Your task to perform on an android device: open app "Truecaller" (install if not already installed) and go to login screen Image 0: 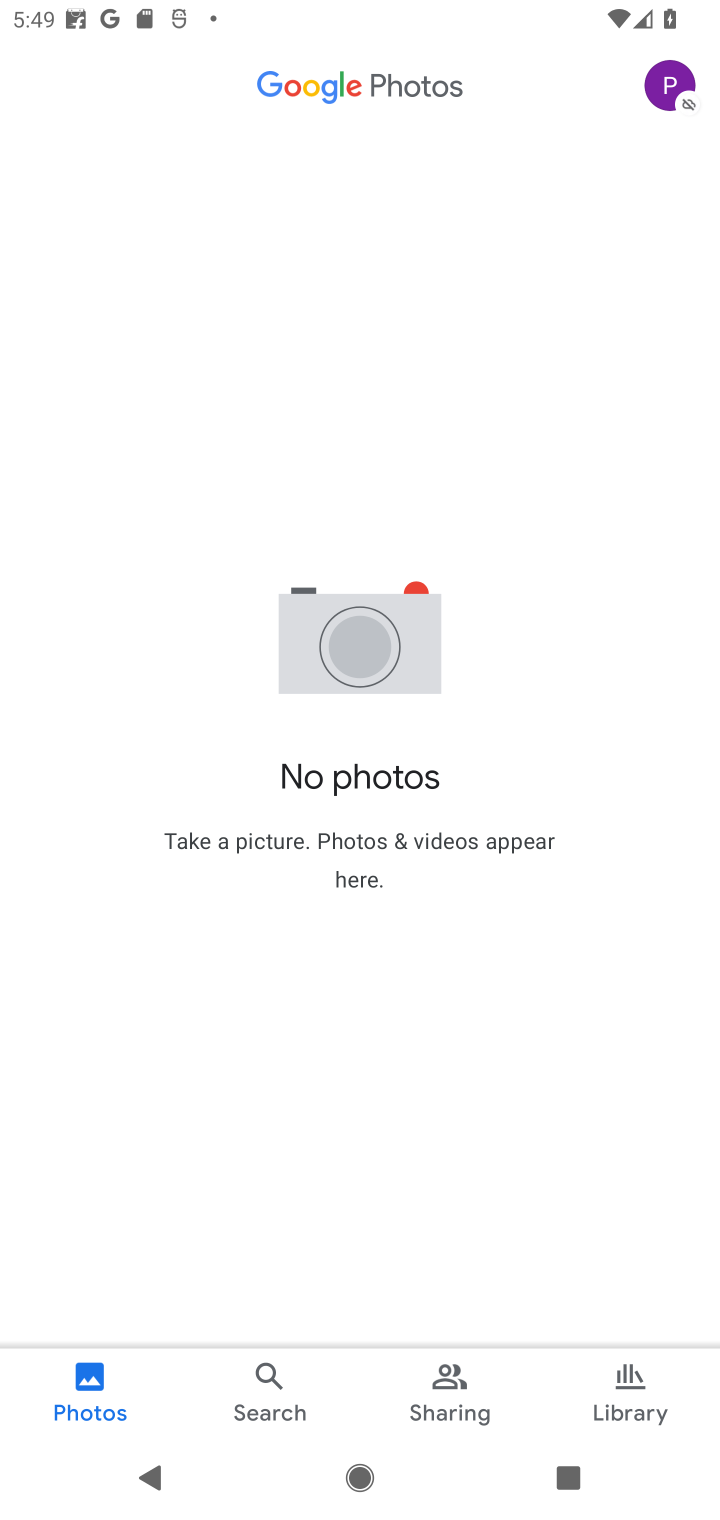
Step 0: press home button
Your task to perform on an android device: open app "Truecaller" (install if not already installed) and go to login screen Image 1: 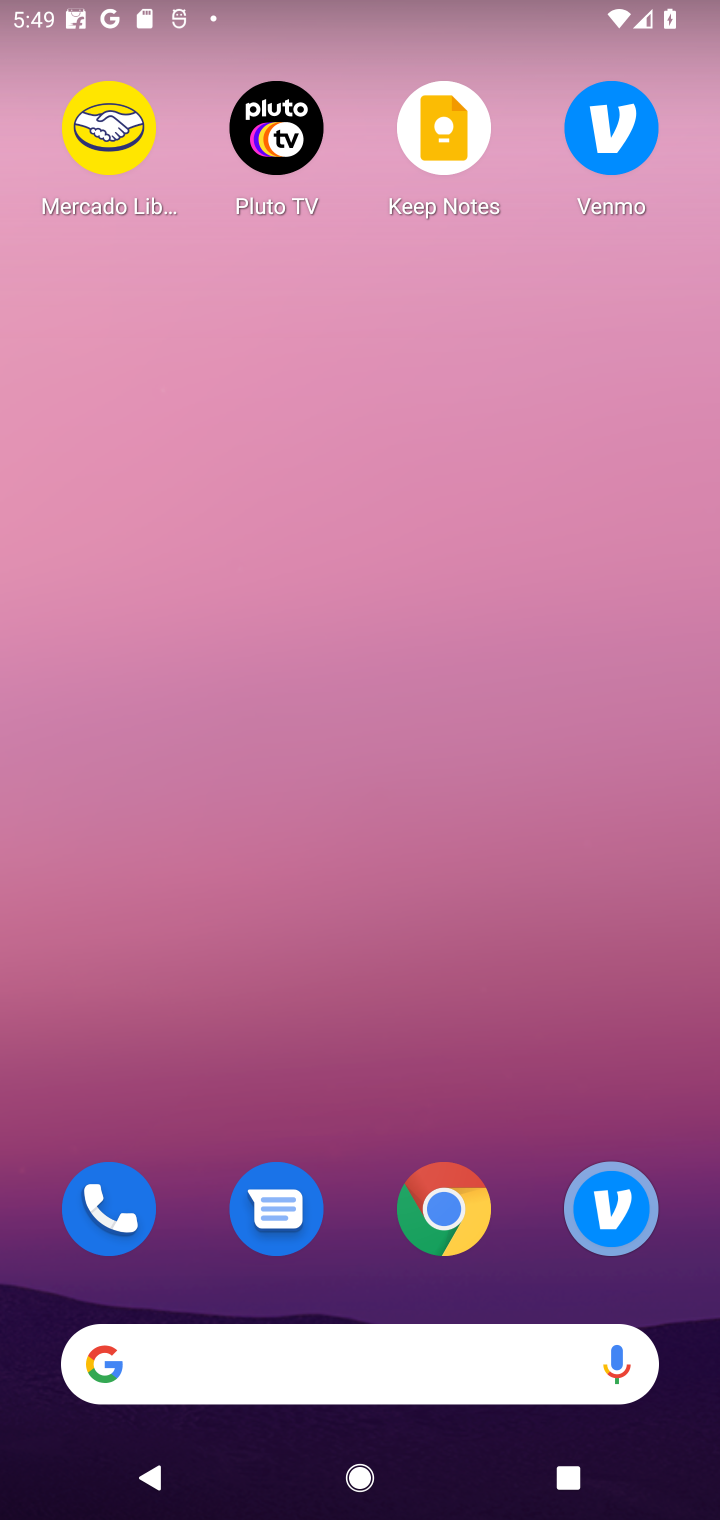
Step 1: drag from (369, 1298) to (495, 229)
Your task to perform on an android device: open app "Truecaller" (install if not already installed) and go to login screen Image 2: 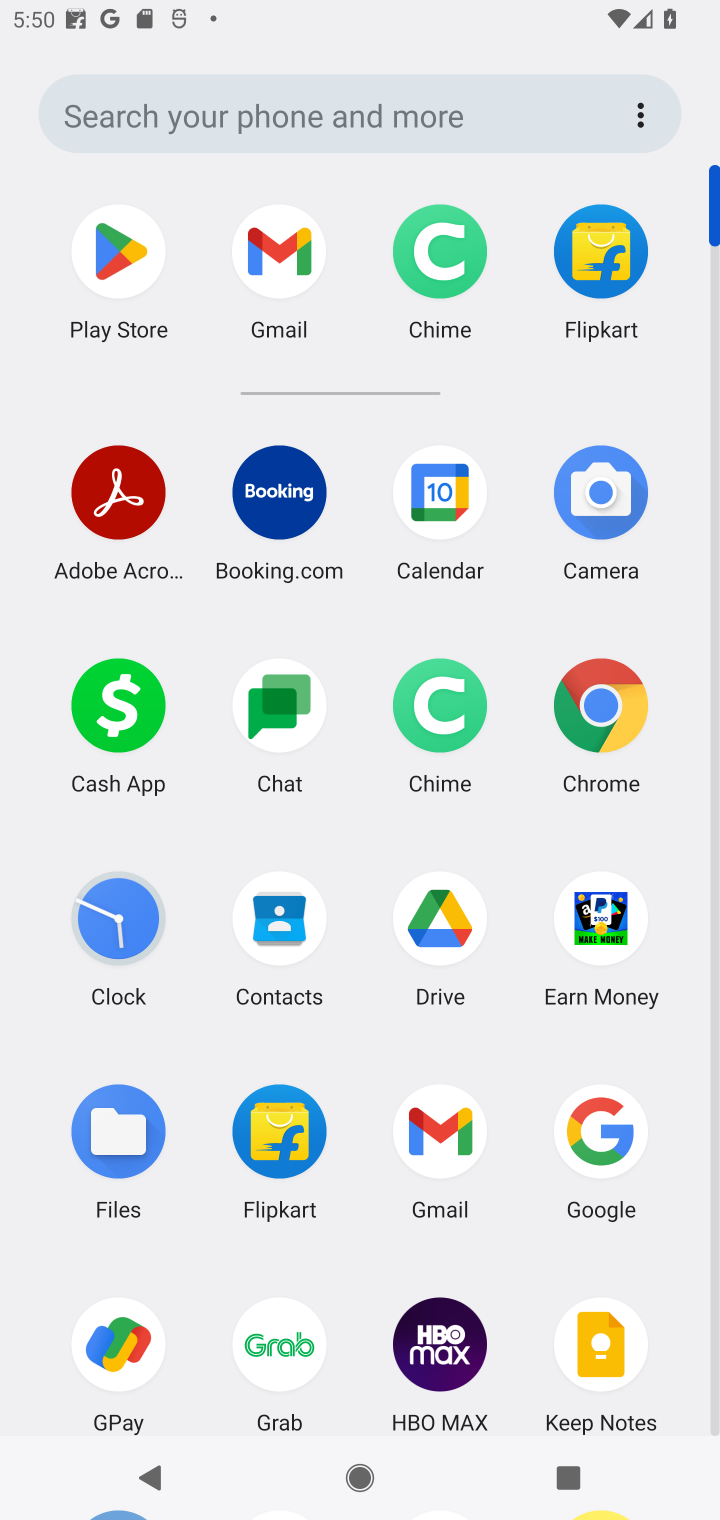
Step 2: click (136, 242)
Your task to perform on an android device: open app "Truecaller" (install if not already installed) and go to login screen Image 3: 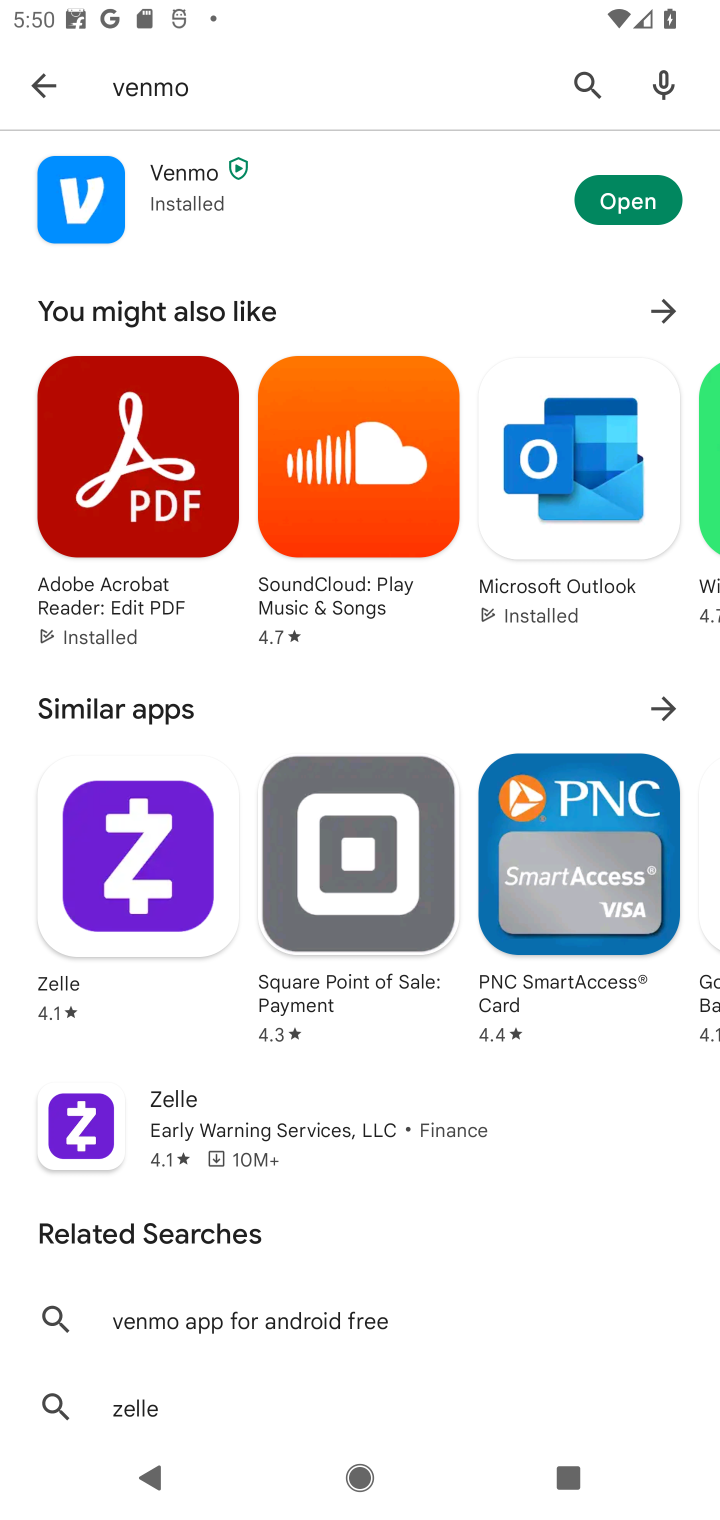
Step 3: click (562, 86)
Your task to perform on an android device: open app "Truecaller" (install if not already installed) and go to login screen Image 4: 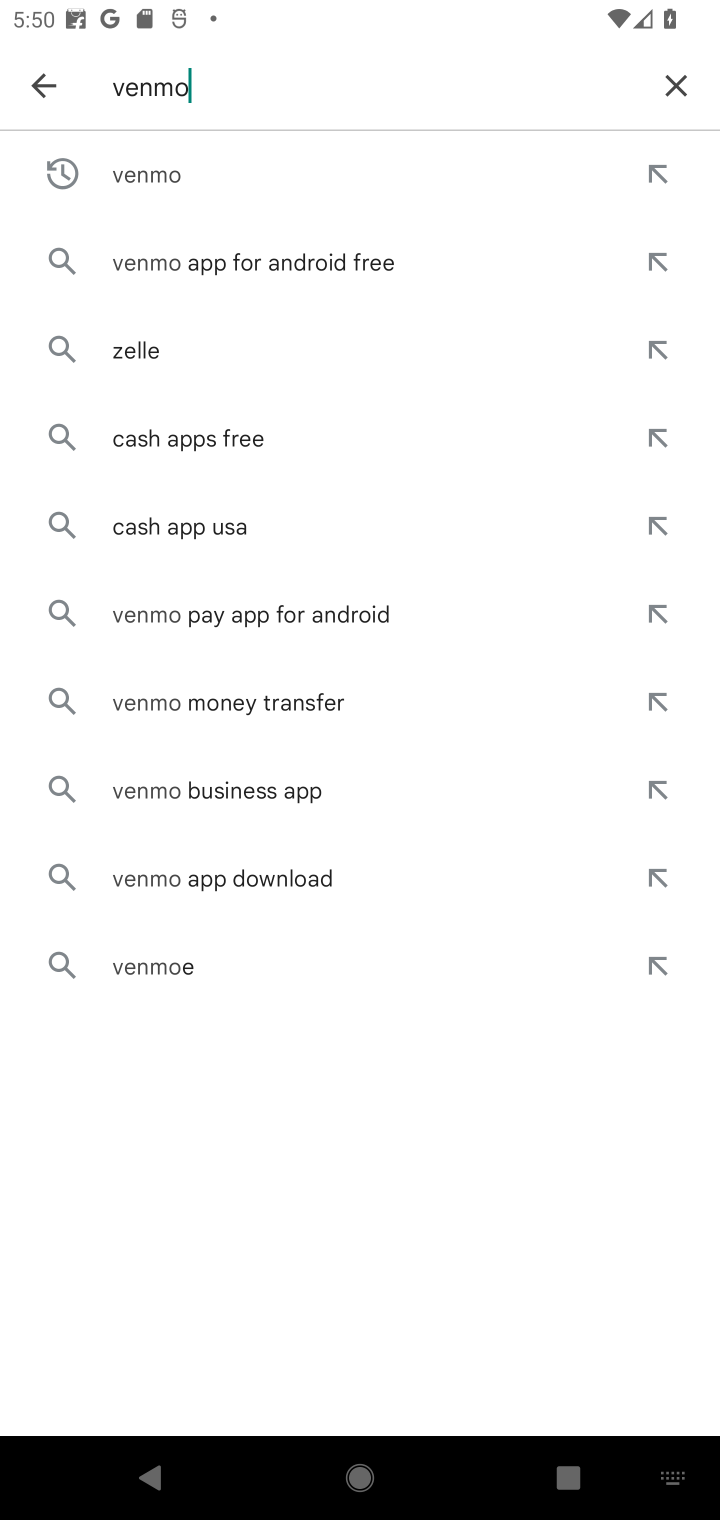
Step 4: click (655, 86)
Your task to perform on an android device: open app "Truecaller" (install if not already installed) and go to login screen Image 5: 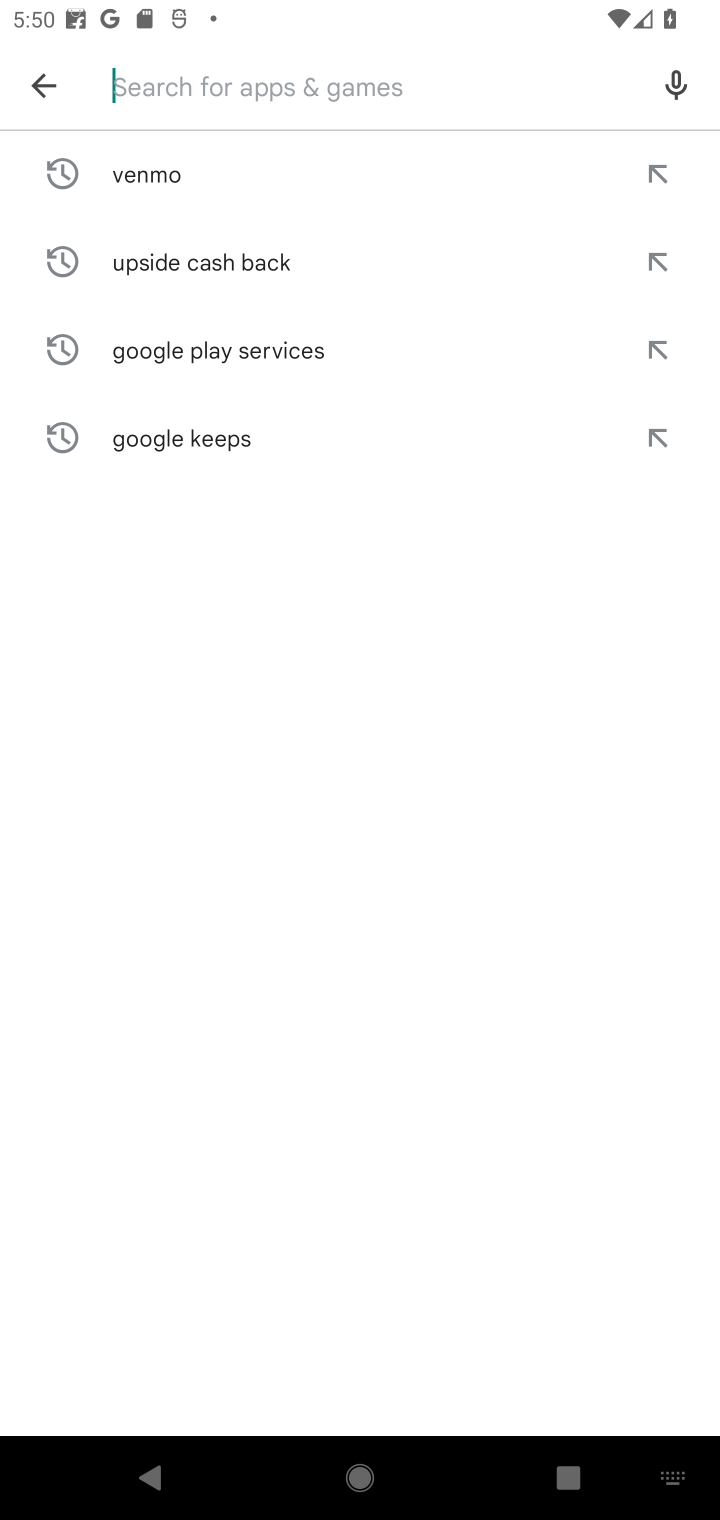
Step 5: type "truecaller"
Your task to perform on an android device: open app "Truecaller" (install if not already installed) and go to login screen Image 6: 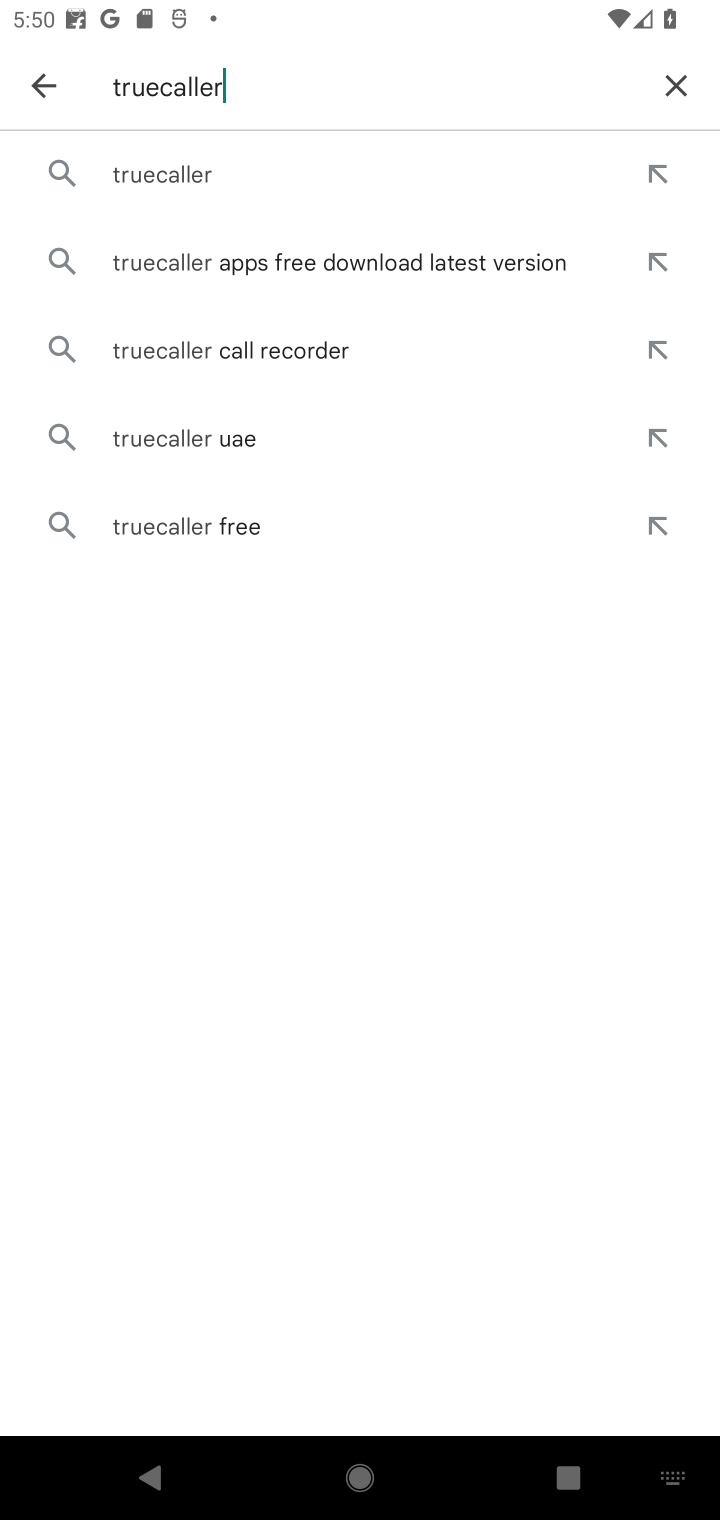
Step 6: click (142, 157)
Your task to perform on an android device: open app "Truecaller" (install if not already installed) and go to login screen Image 7: 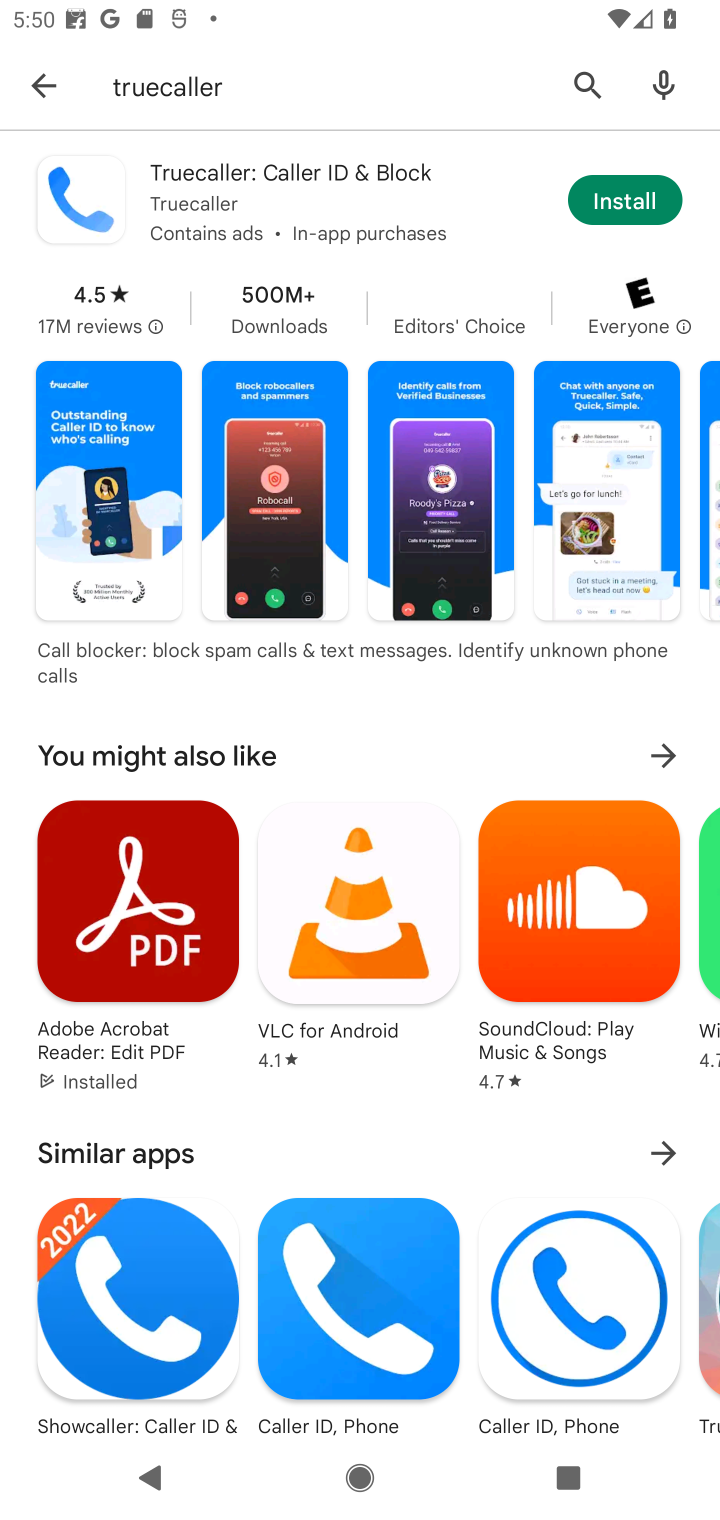
Step 7: click (644, 185)
Your task to perform on an android device: open app "Truecaller" (install if not already installed) and go to login screen Image 8: 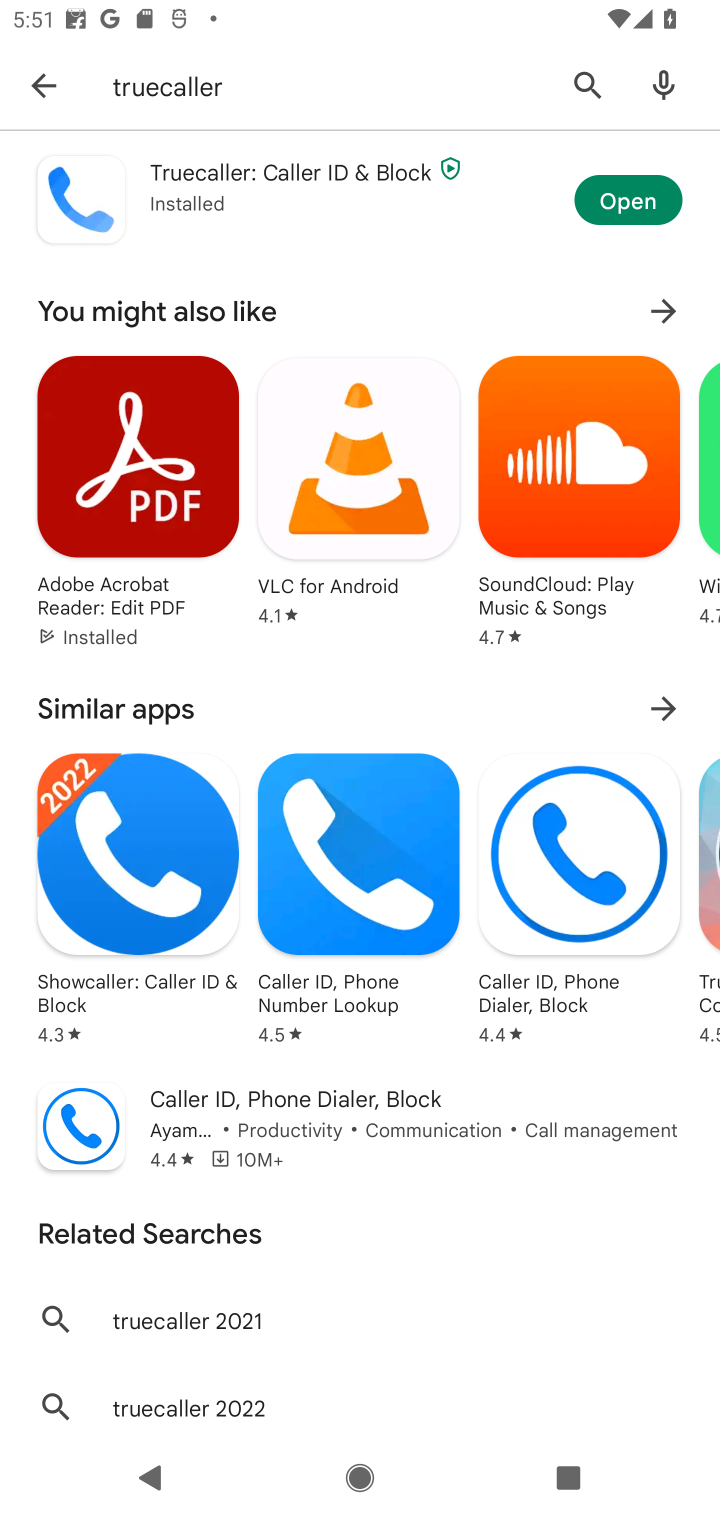
Step 8: click (589, 205)
Your task to perform on an android device: open app "Truecaller" (install if not already installed) and go to login screen Image 9: 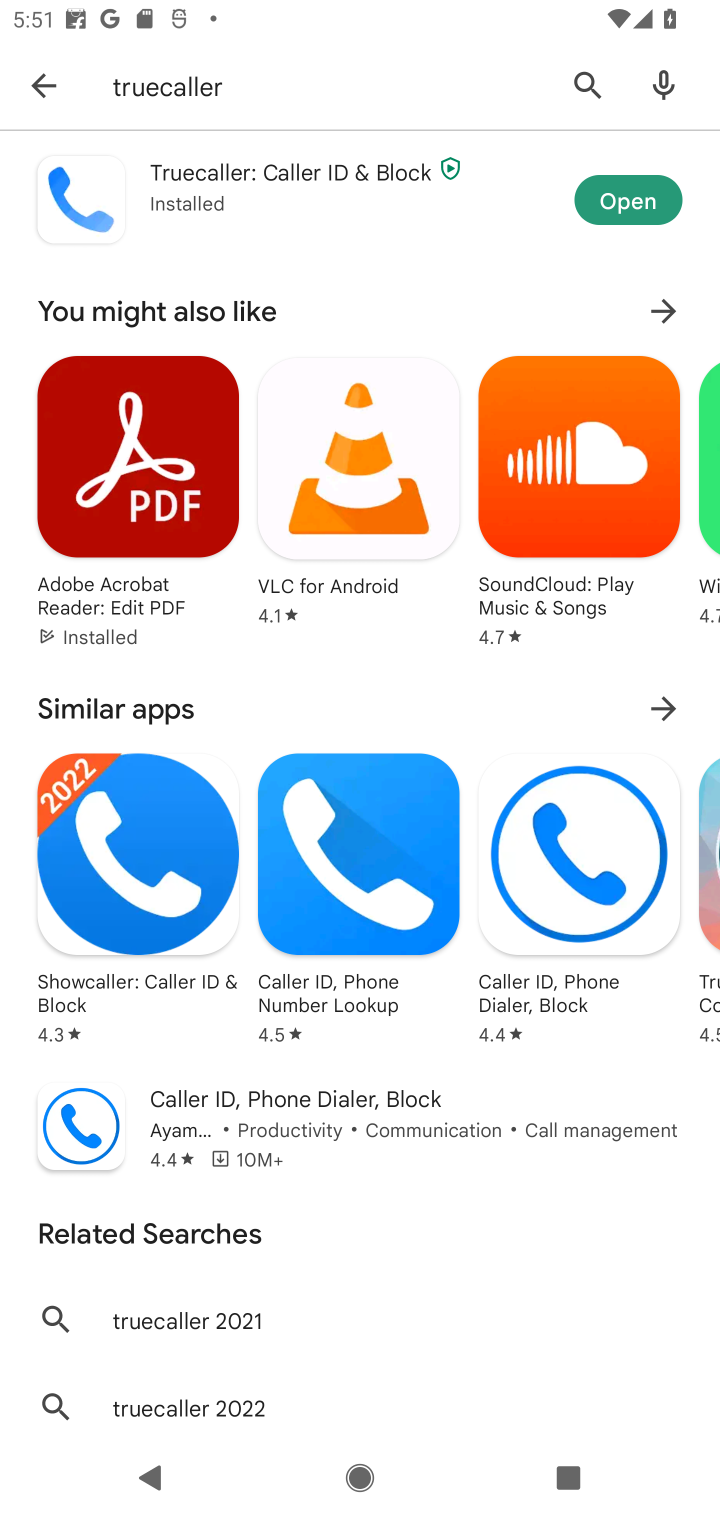
Step 9: task complete